Your task to perform on an android device: turn on translation in the chrome app Image 0: 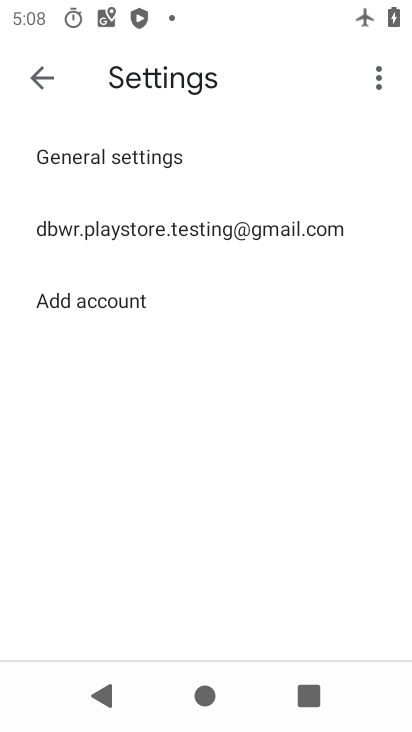
Step 0: press home button
Your task to perform on an android device: turn on translation in the chrome app Image 1: 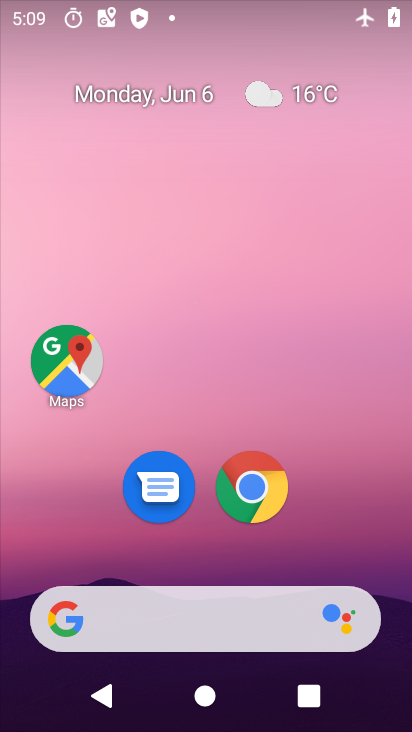
Step 1: click (259, 483)
Your task to perform on an android device: turn on translation in the chrome app Image 2: 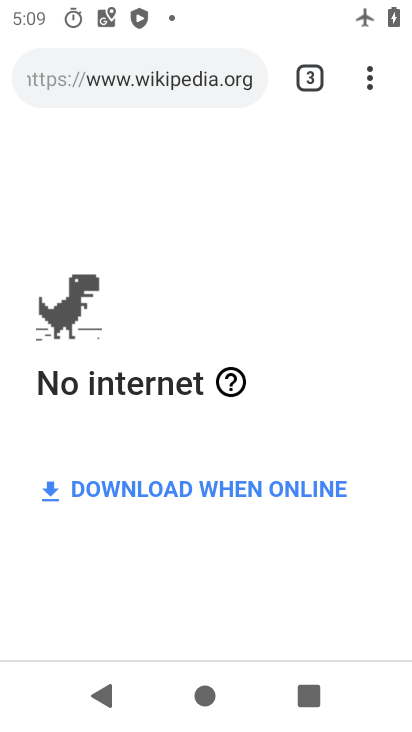
Step 2: drag from (368, 74) to (216, 602)
Your task to perform on an android device: turn on translation in the chrome app Image 3: 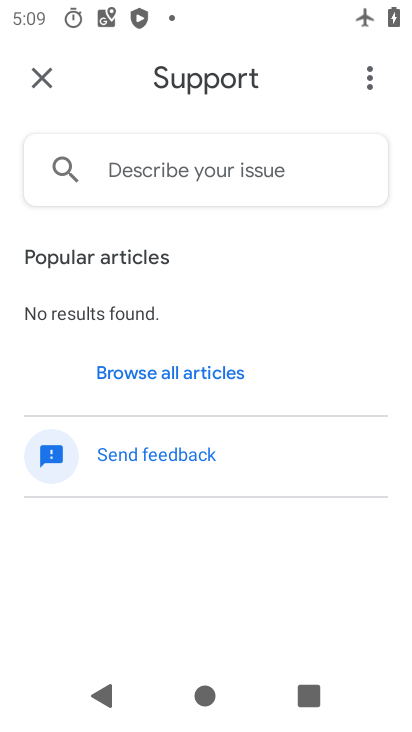
Step 3: click (56, 78)
Your task to perform on an android device: turn on translation in the chrome app Image 4: 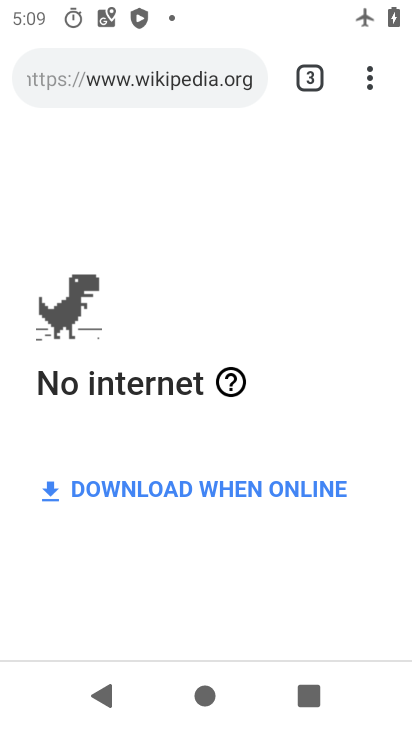
Step 4: drag from (377, 74) to (272, 574)
Your task to perform on an android device: turn on translation in the chrome app Image 5: 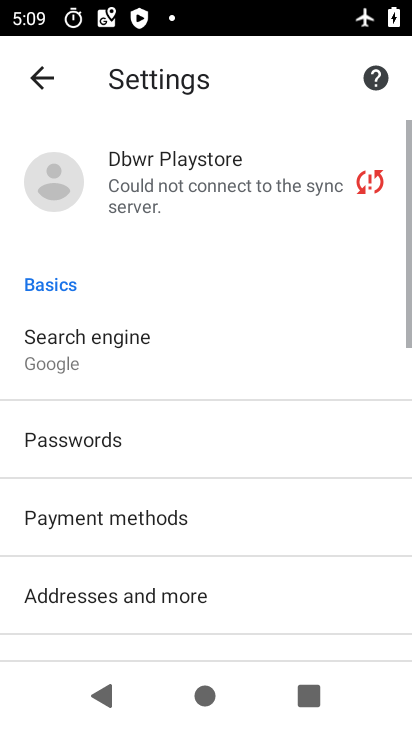
Step 5: drag from (272, 572) to (326, 151)
Your task to perform on an android device: turn on translation in the chrome app Image 6: 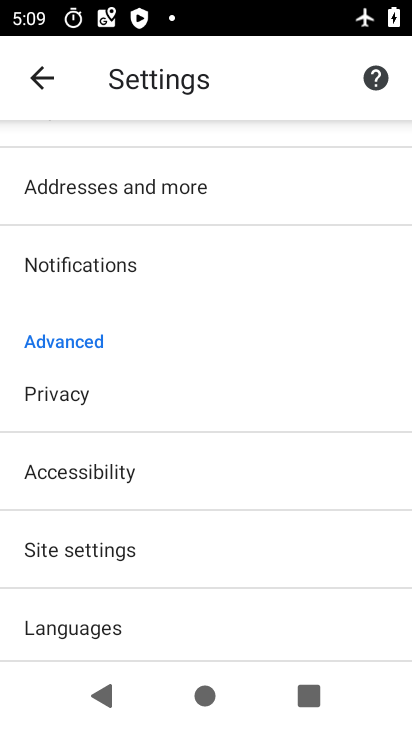
Step 6: drag from (236, 447) to (281, 175)
Your task to perform on an android device: turn on translation in the chrome app Image 7: 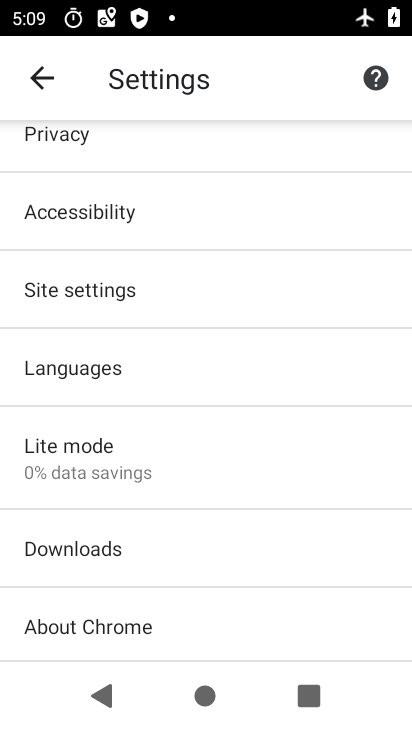
Step 7: click (192, 367)
Your task to perform on an android device: turn on translation in the chrome app Image 8: 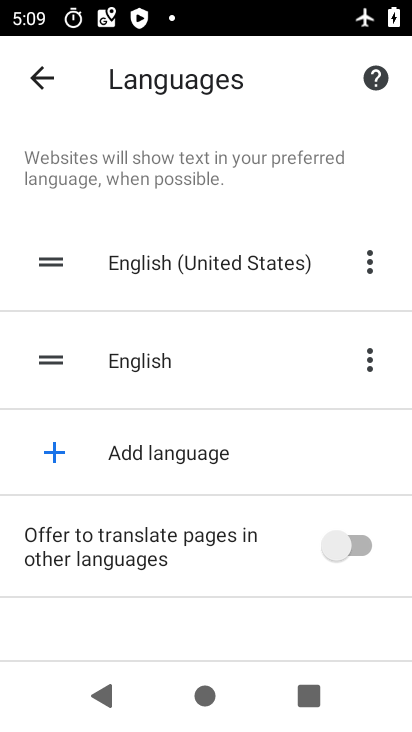
Step 8: click (350, 541)
Your task to perform on an android device: turn on translation in the chrome app Image 9: 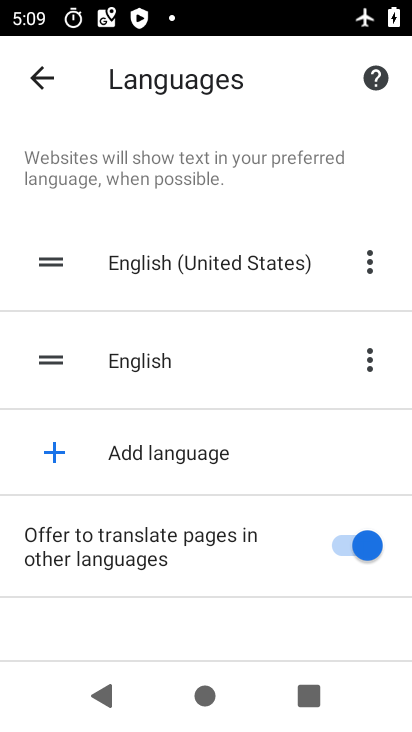
Step 9: task complete